Your task to perform on an android device: check data usage Image 0: 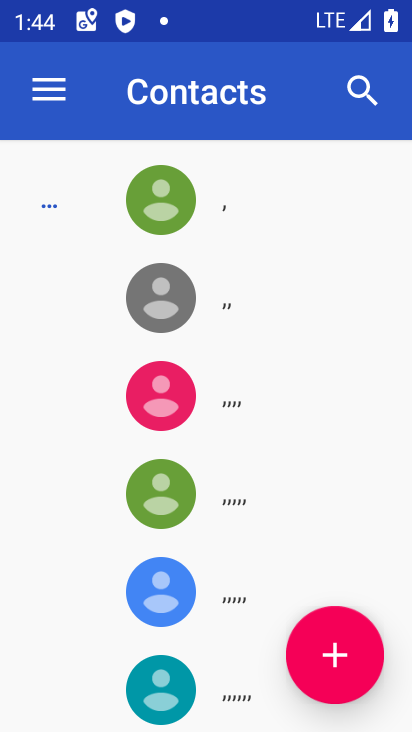
Step 0: press home button
Your task to perform on an android device: check data usage Image 1: 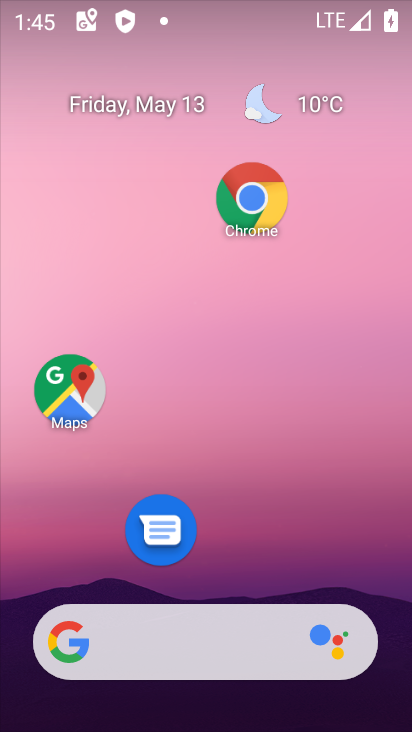
Step 1: drag from (214, 592) to (200, 2)
Your task to perform on an android device: check data usage Image 2: 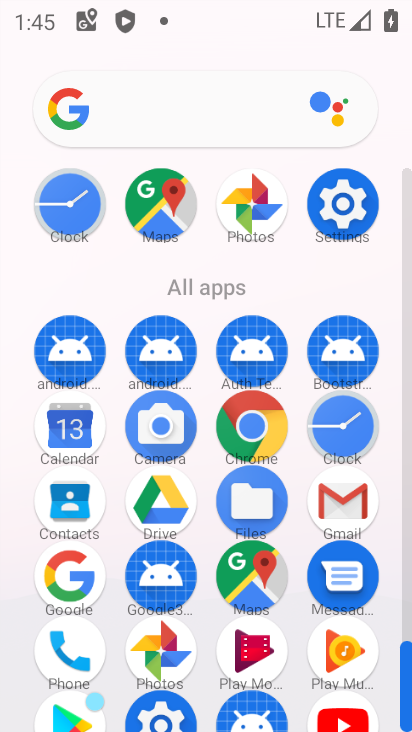
Step 2: click (334, 197)
Your task to perform on an android device: check data usage Image 3: 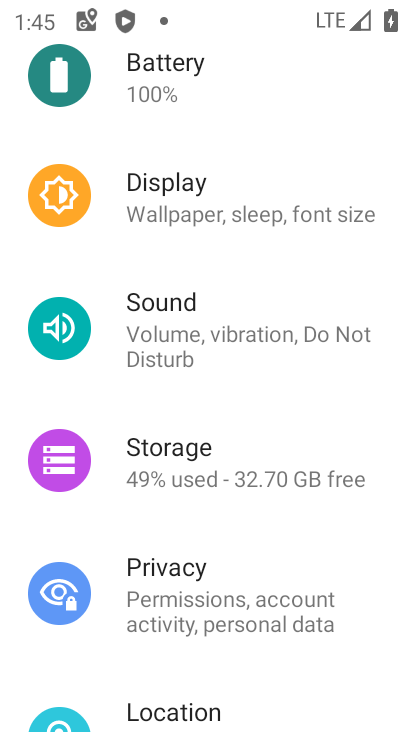
Step 3: drag from (187, 123) to (182, 604)
Your task to perform on an android device: check data usage Image 4: 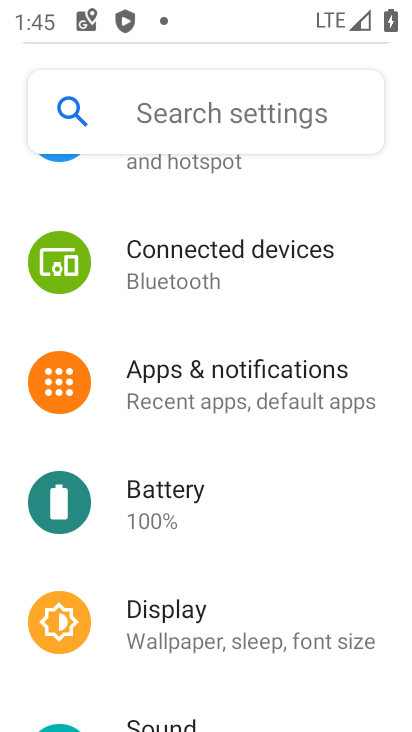
Step 4: drag from (230, 257) to (238, 569)
Your task to perform on an android device: check data usage Image 5: 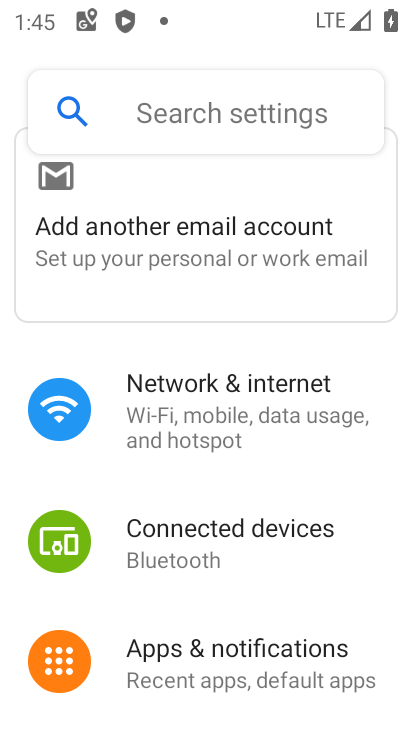
Step 5: click (213, 404)
Your task to perform on an android device: check data usage Image 6: 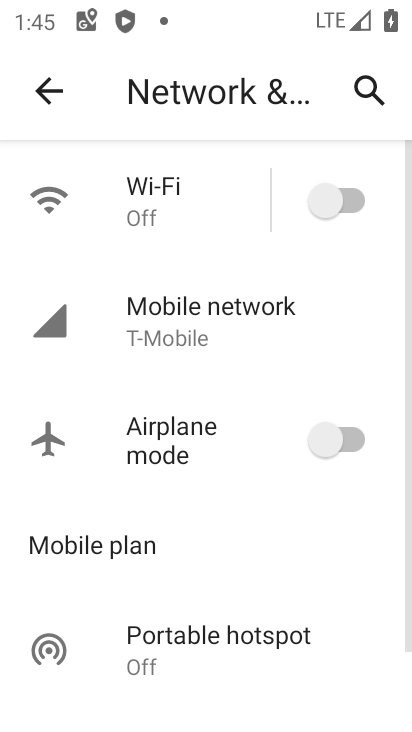
Step 6: click (208, 320)
Your task to perform on an android device: check data usage Image 7: 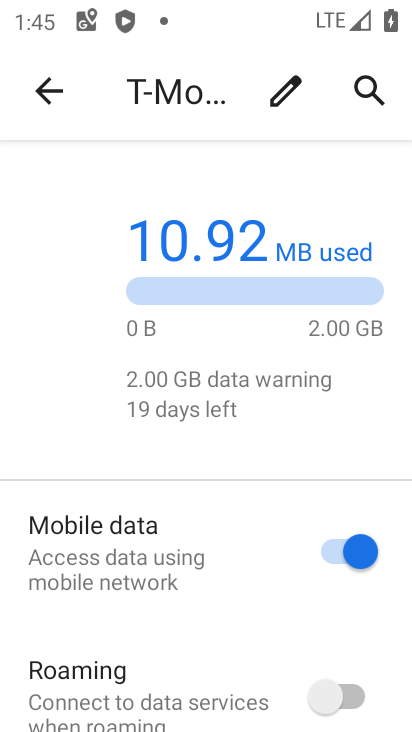
Step 7: task complete